Your task to perform on an android device: Go to Yahoo.com Image 0: 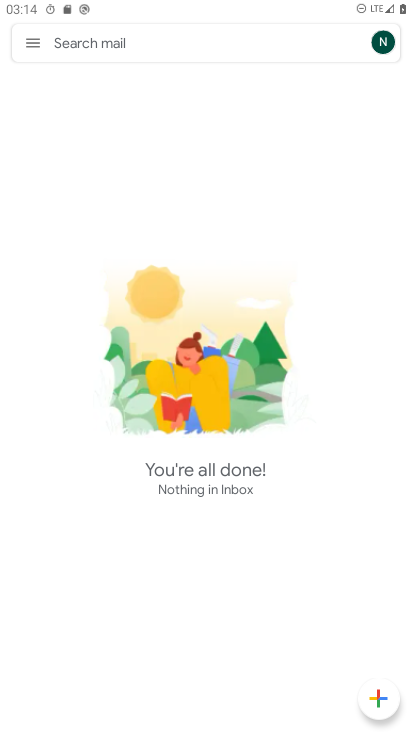
Step 0: press home button
Your task to perform on an android device: Go to Yahoo.com Image 1: 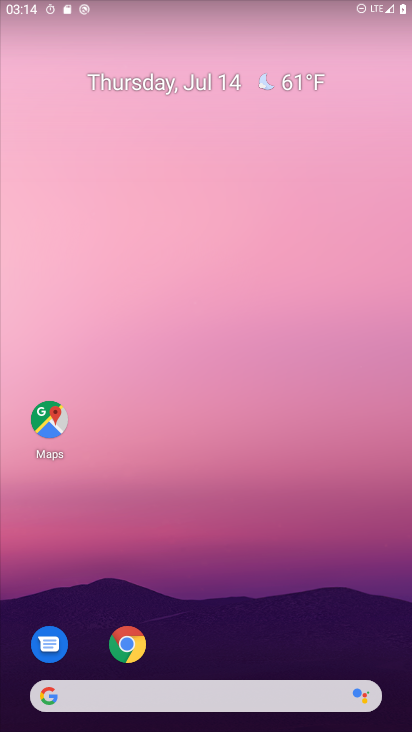
Step 1: drag from (257, 626) to (236, 61)
Your task to perform on an android device: Go to Yahoo.com Image 2: 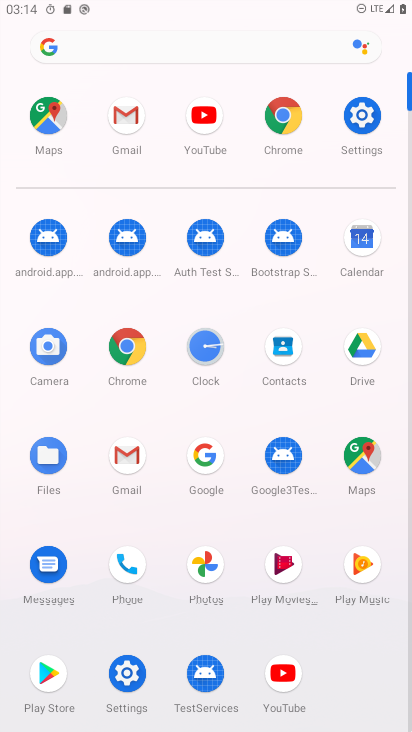
Step 2: click (281, 117)
Your task to perform on an android device: Go to Yahoo.com Image 3: 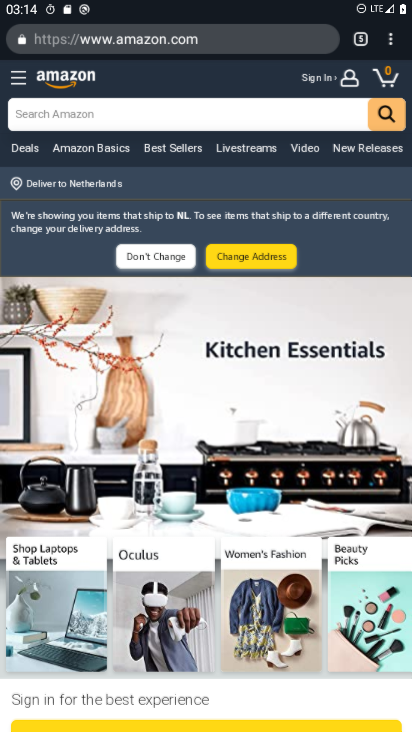
Step 3: click (165, 44)
Your task to perform on an android device: Go to Yahoo.com Image 4: 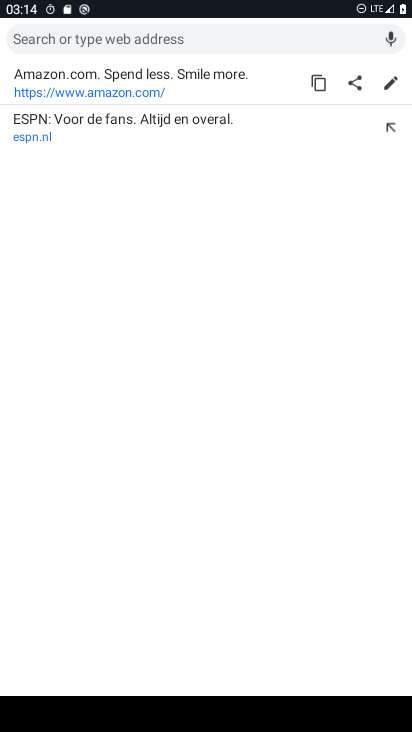
Step 4: type "yahoo.com"
Your task to perform on an android device: Go to Yahoo.com Image 5: 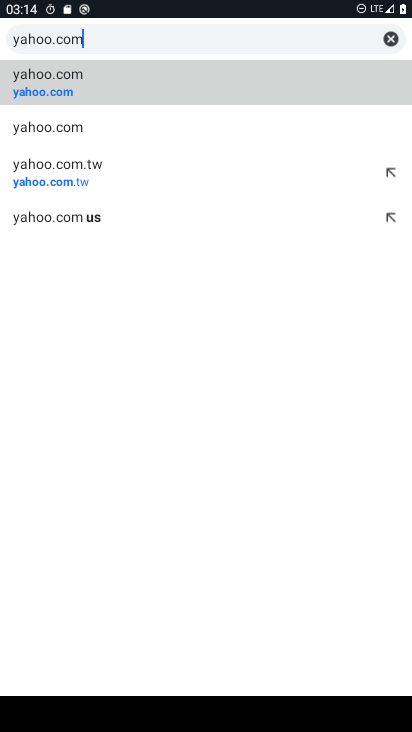
Step 5: click (40, 91)
Your task to perform on an android device: Go to Yahoo.com Image 6: 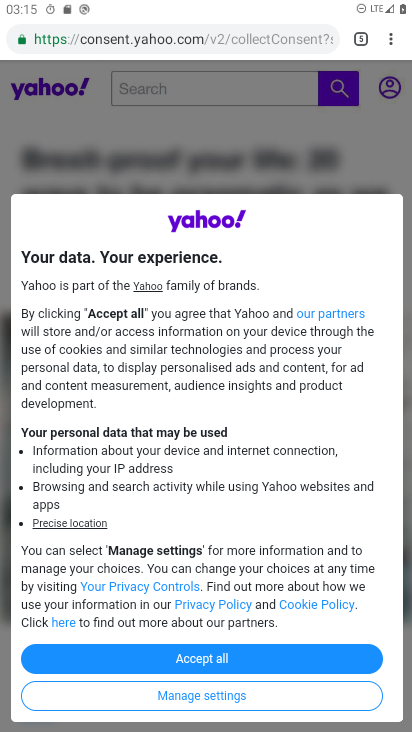
Step 6: task complete